Your task to perform on an android device: Toggle the flashlight Image 0: 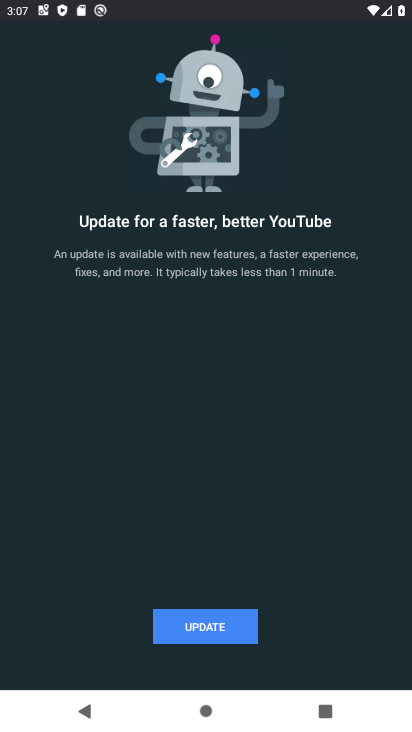
Step 0: drag from (274, 10) to (286, 427)
Your task to perform on an android device: Toggle the flashlight Image 1: 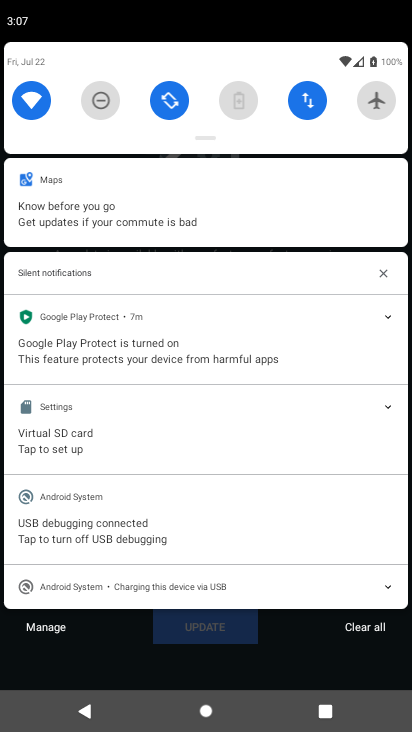
Step 1: drag from (234, 132) to (255, 380)
Your task to perform on an android device: Toggle the flashlight Image 2: 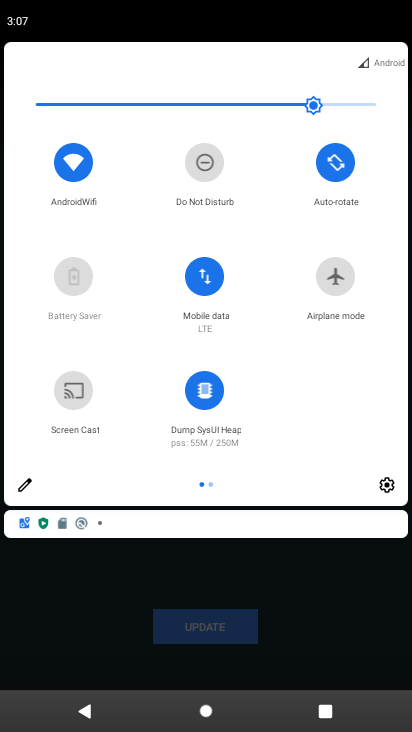
Step 2: click (25, 489)
Your task to perform on an android device: Toggle the flashlight Image 3: 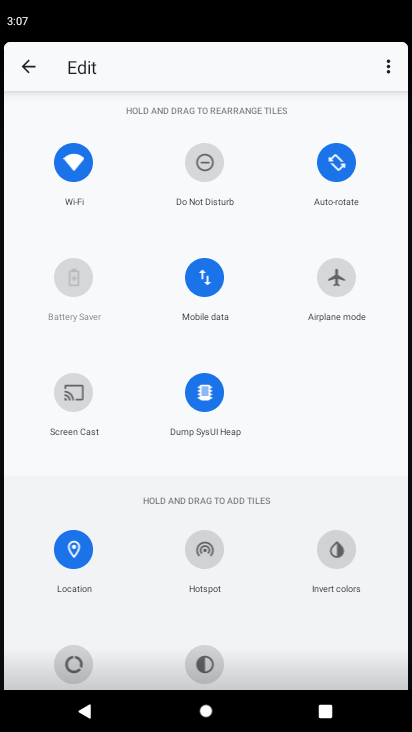
Step 3: task complete